Your task to perform on an android device: empty trash in the gmail app Image 0: 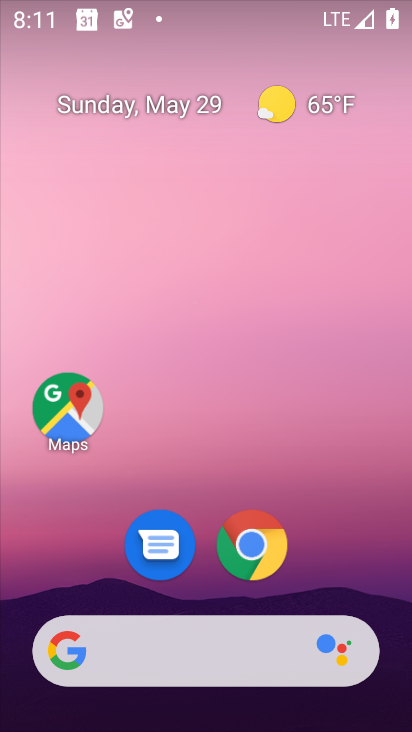
Step 0: drag from (208, 426) to (256, 233)
Your task to perform on an android device: empty trash in the gmail app Image 1: 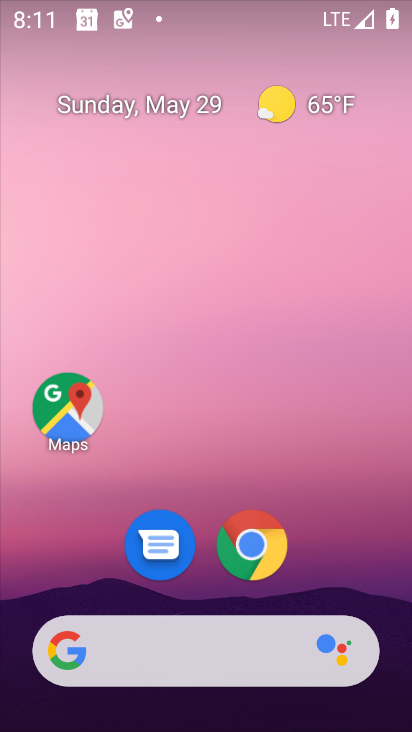
Step 1: drag from (199, 595) to (283, 166)
Your task to perform on an android device: empty trash in the gmail app Image 2: 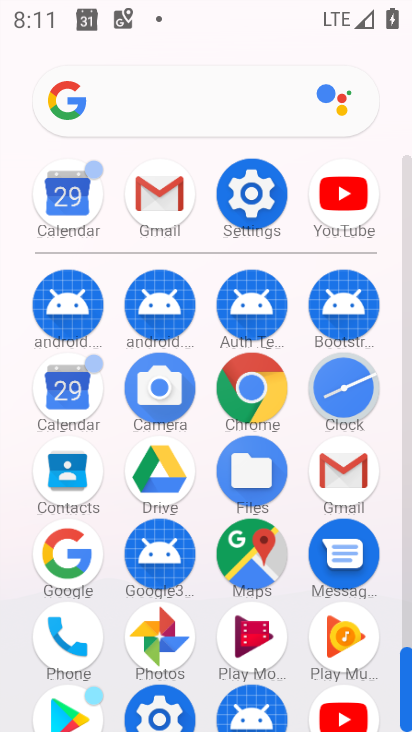
Step 2: click (156, 201)
Your task to perform on an android device: empty trash in the gmail app Image 3: 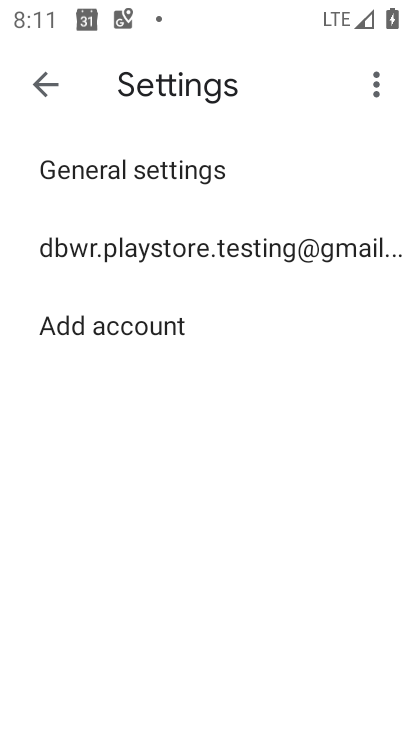
Step 3: click (43, 90)
Your task to perform on an android device: empty trash in the gmail app Image 4: 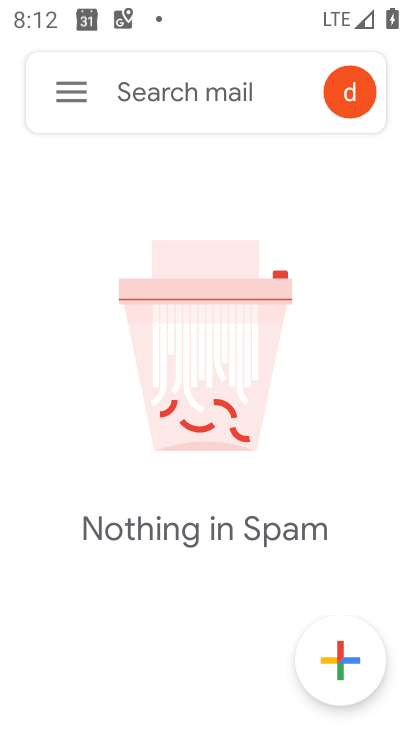
Step 4: click (70, 88)
Your task to perform on an android device: empty trash in the gmail app Image 5: 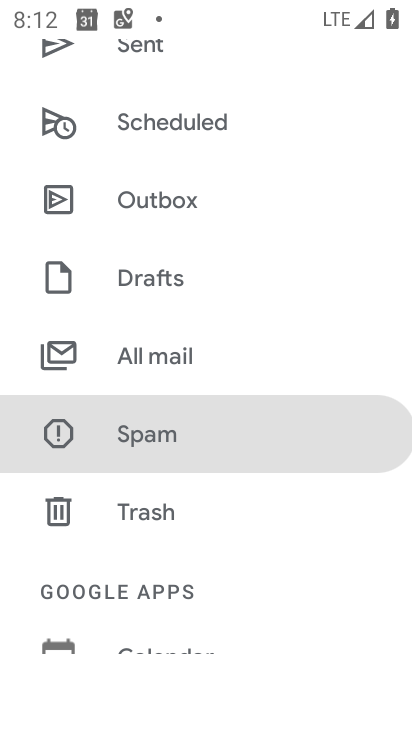
Step 5: click (140, 515)
Your task to perform on an android device: empty trash in the gmail app Image 6: 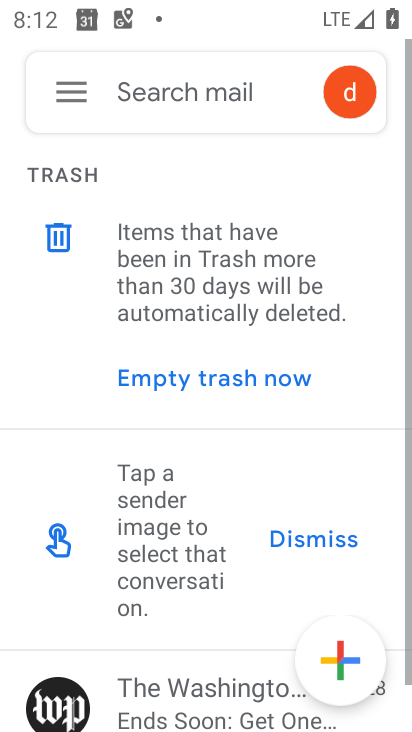
Step 6: task complete